Your task to perform on an android device: Check the weather Image 0: 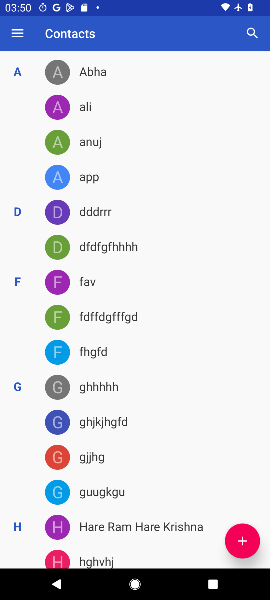
Step 0: press home button
Your task to perform on an android device: Check the weather Image 1: 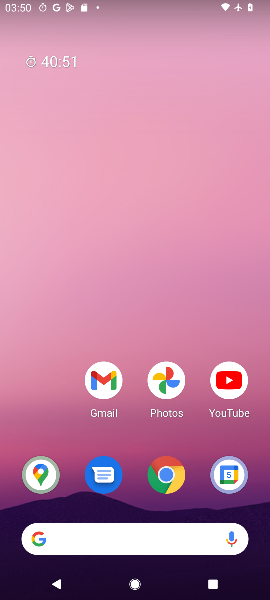
Step 1: click (137, 544)
Your task to perform on an android device: Check the weather Image 2: 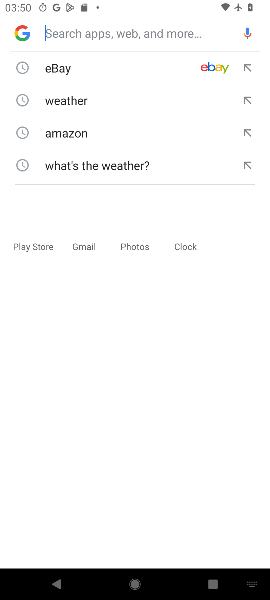
Step 2: click (86, 104)
Your task to perform on an android device: Check the weather Image 3: 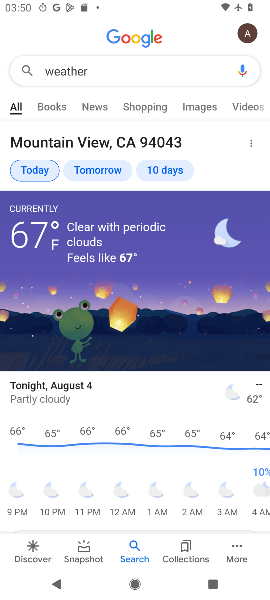
Step 3: task complete